Your task to perform on an android device: see creations saved in the google photos Image 0: 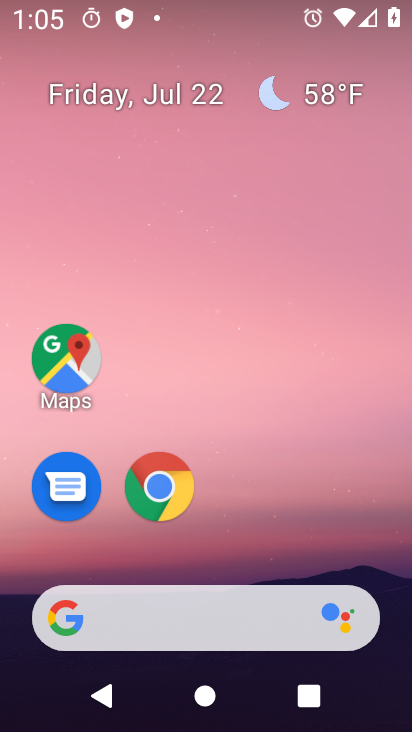
Step 0: press home button
Your task to perform on an android device: see creations saved in the google photos Image 1: 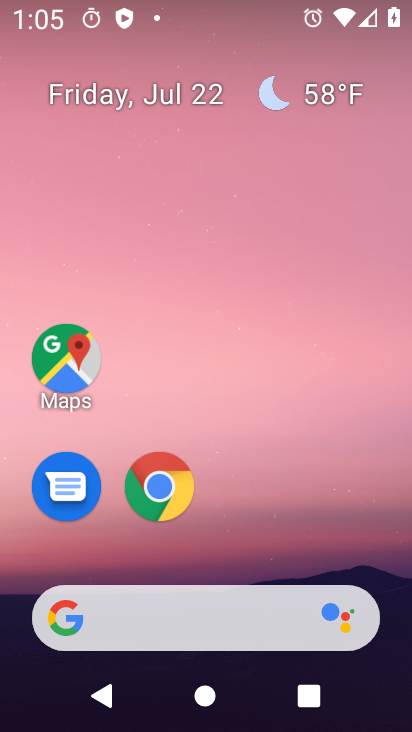
Step 1: drag from (319, 523) to (334, 138)
Your task to perform on an android device: see creations saved in the google photos Image 2: 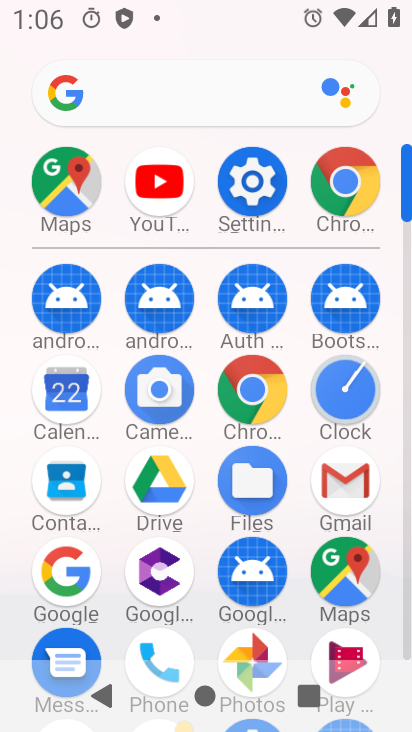
Step 2: drag from (398, 619) to (398, 384)
Your task to perform on an android device: see creations saved in the google photos Image 3: 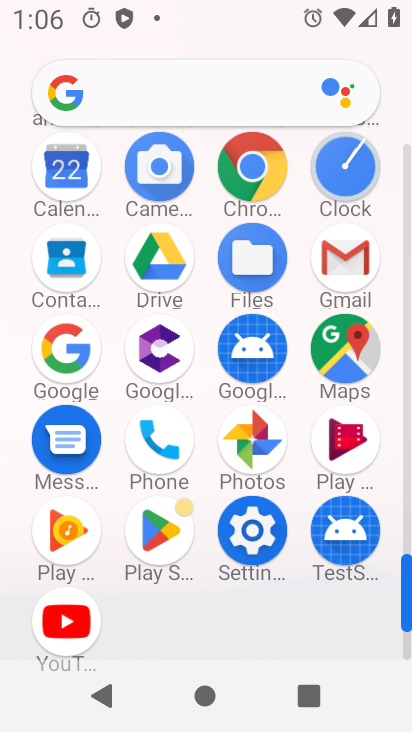
Step 3: click (261, 439)
Your task to perform on an android device: see creations saved in the google photos Image 4: 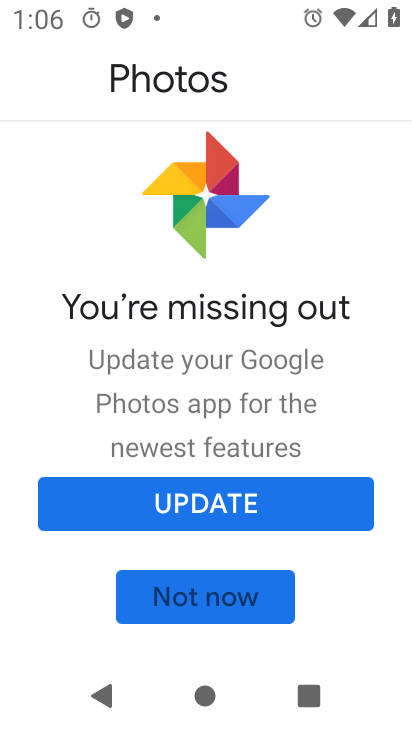
Step 4: click (261, 498)
Your task to perform on an android device: see creations saved in the google photos Image 5: 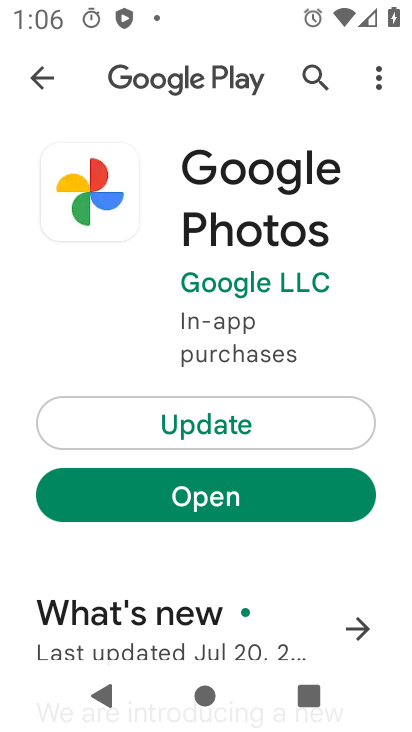
Step 5: click (259, 432)
Your task to perform on an android device: see creations saved in the google photos Image 6: 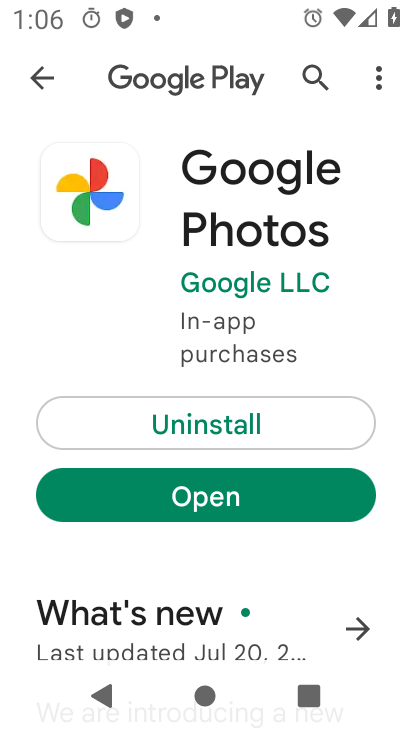
Step 6: click (351, 498)
Your task to perform on an android device: see creations saved in the google photos Image 7: 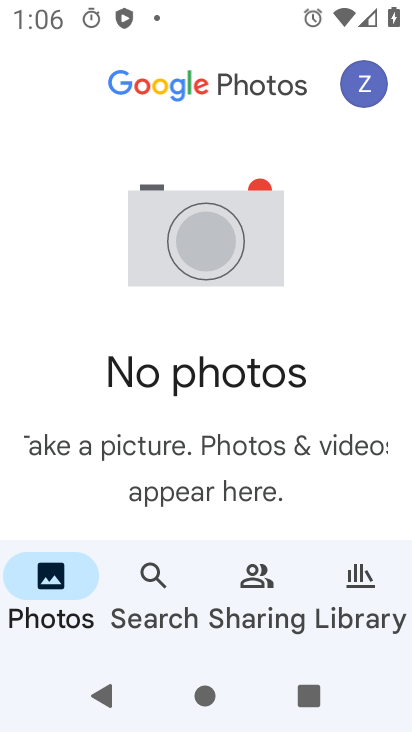
Step 7: click (177, 600)
Your task to perform on an android device: see creations saved in the google photos Image 8: 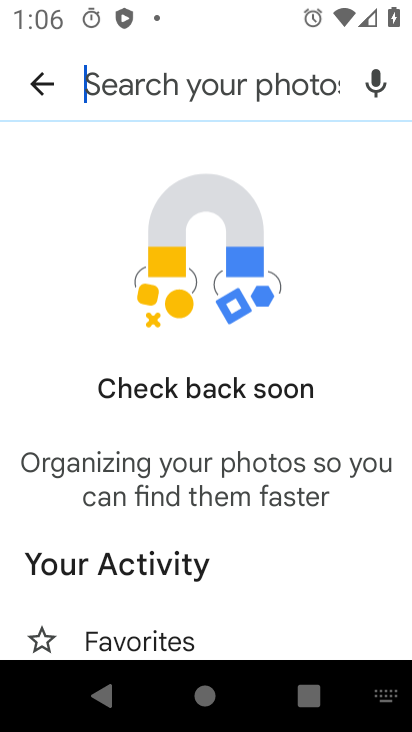
Step 8: drag from (273, 524) to (275, 442)
Your task to perform on an android device: see creations saved in the google photos Image 9: 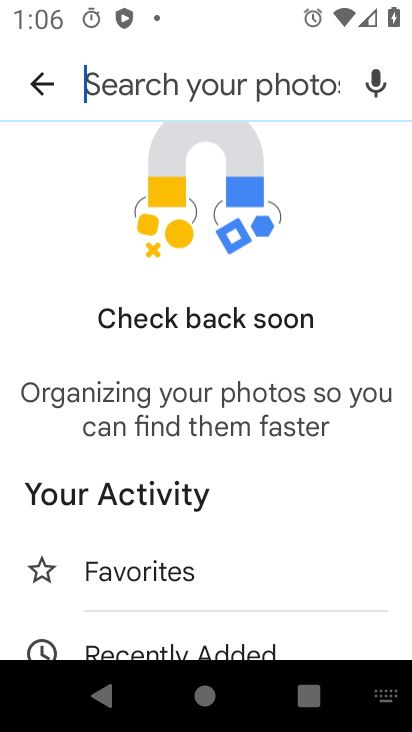
Step 9: drag from (290, 544) to (290, 436)
Your task to perform on an android device: see creations saved in the google photos Image 10: 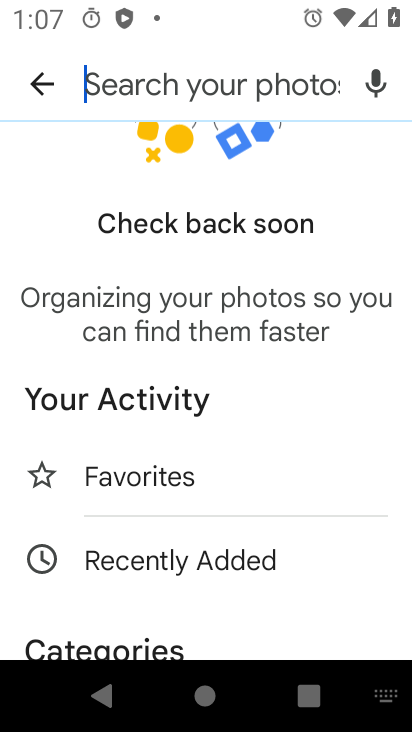
Step 10: drag from (288, 539) to (288, 439)
Your task to perform on an android device: see creations saved in the google photos Image 11: 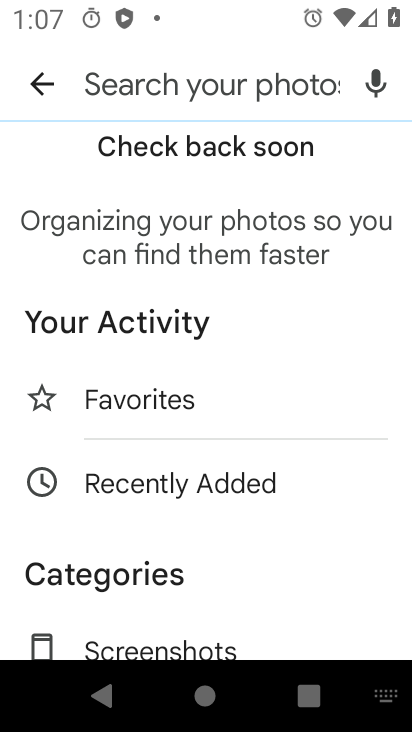
Step 11: drag from (271, 555) to (271, 441)
Your task to perform on an android device: see creations saved in the google photos Image 12: 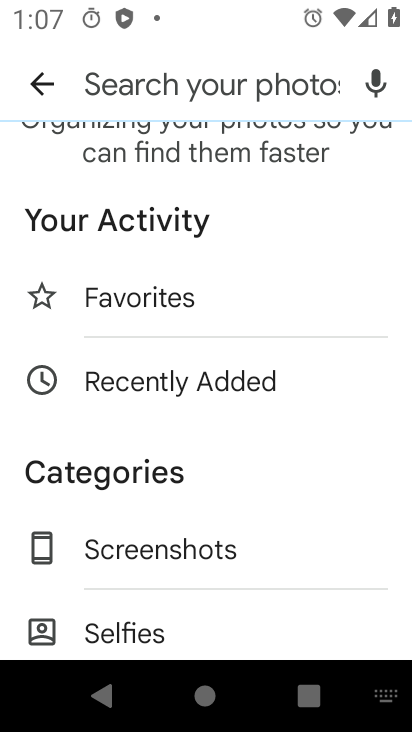
Step 12: drag from (264, 578) to (265, 480)
Your task to perform on an android device: see creations saved in the google photos Image 13: 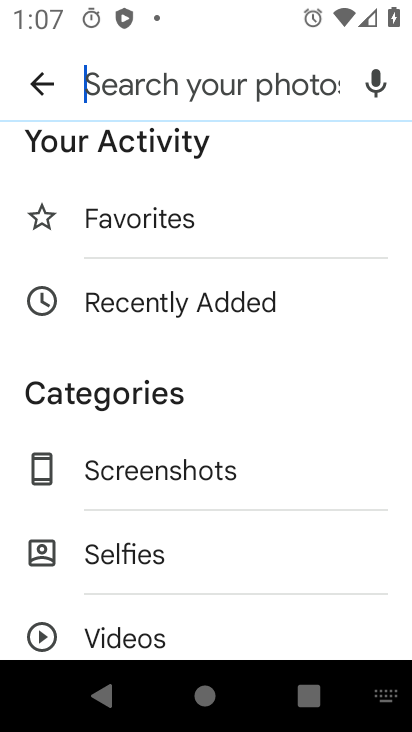
Step 13: drag from (265, 565) to (265, 433)
Your task to perform on an android device: see creations saved in the google photos Image 14: 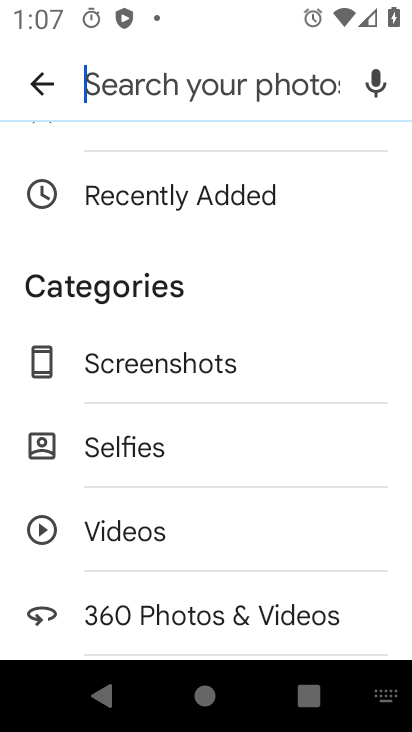
Step 14: drag from (243, 528) to (249, 399)
Your task to perform on an android device: see creations saved in the google photos Image 15: 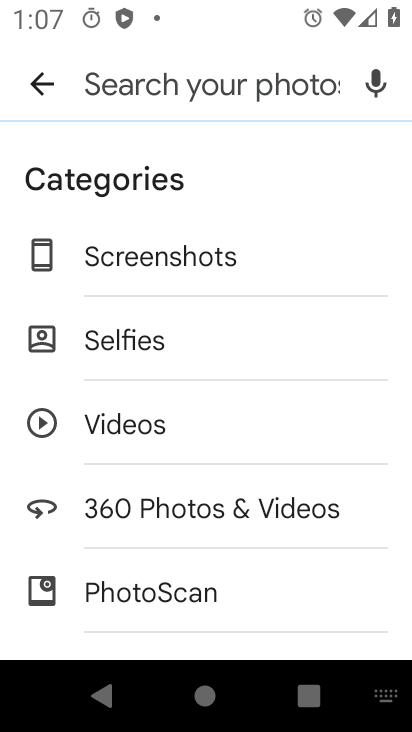
Step 15: drag from (245, 556) to (250, 433)
Your task to perform on an android device: see creations saved in the google photos Image 16: 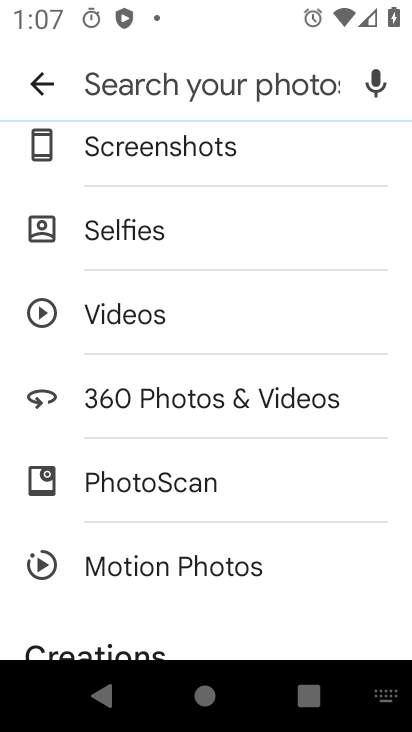
Step 16: drag from (245, 588) to (247, 390)
Your task to perform on an android device: see creations saved in the google photos Image 17: 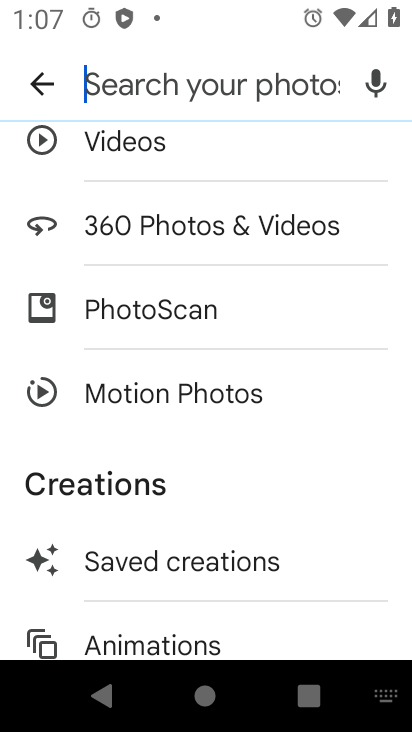
Step 17: drag from (261, 530) to (266, 396)
Your task to perform on an android device: see creations saved in the google photos Image 18: 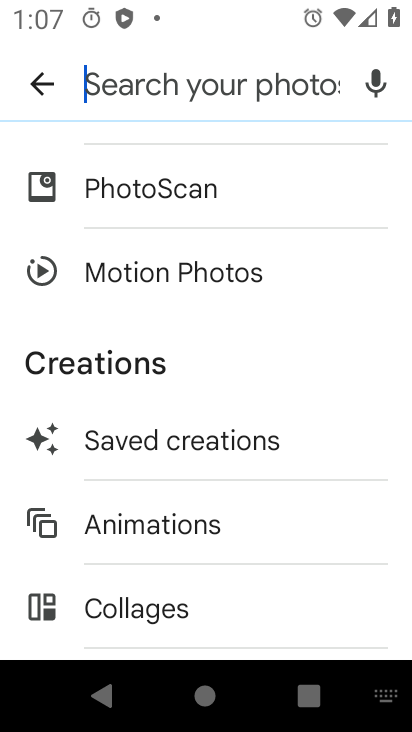
Step 18: click (245, 432)
Your task to perform on an android device: see creations saved in the google photos Image 19: 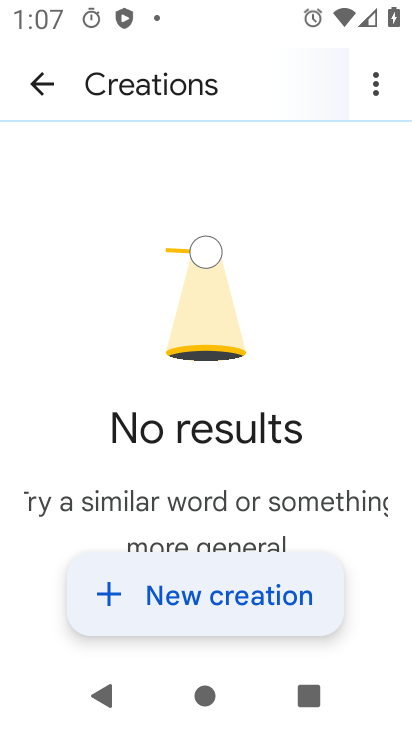
Step 19: task complete